Your task to perform on an android device: What's the weather going to be this weekend? Image 0: 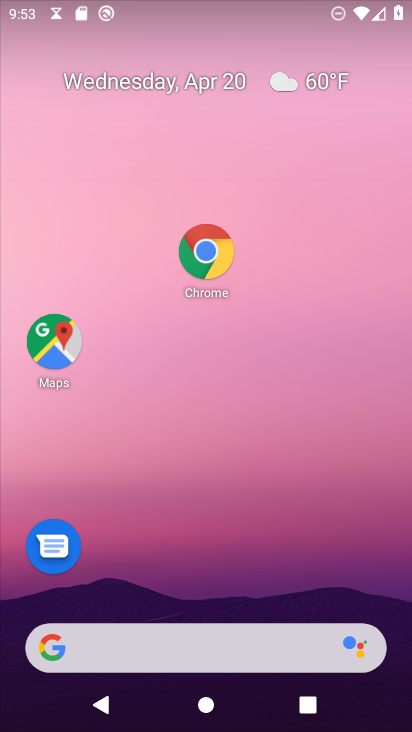
Step 0: drag from (150, 626) to (115, 229)
Your task to perform on an android device: What's the weather going to be this weekend? Image 1: 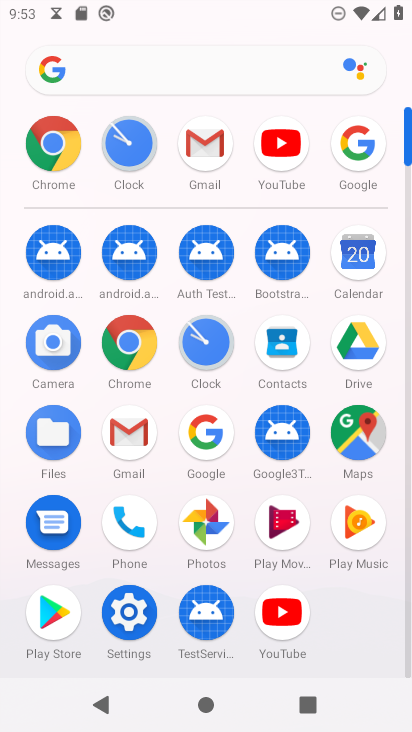
Step 1: click (199, 436)
Your task to perform on an android device: What's the weather going to be this weekend? Image 2: 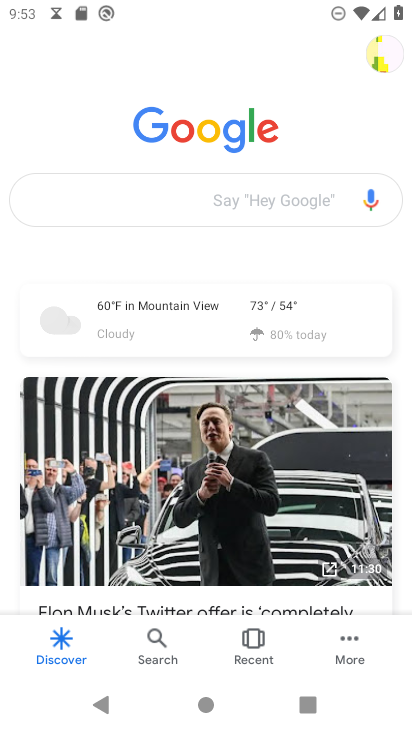
Step 2: click (120, 202)
Your task to perform on an android device: What's the weather going to be this weekend? Image 3: 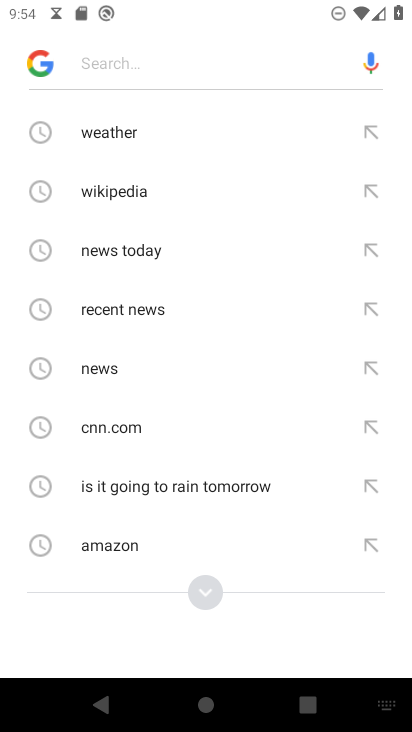
Step 3: type "whats the weather going to be this weekend?"
Your task to perform on an android device: What's the weather going to be this weekend? Image 4: 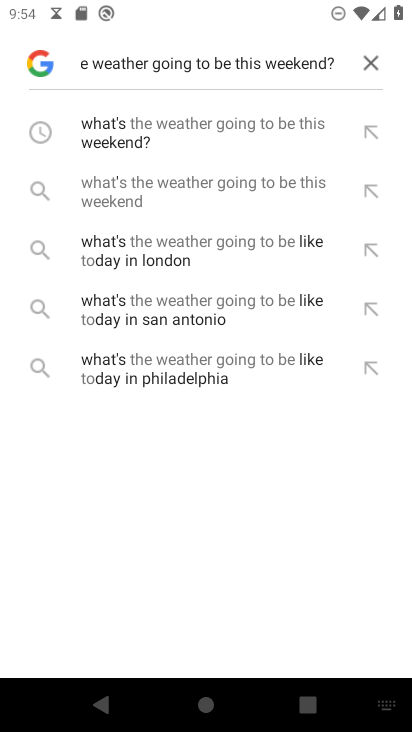
Step 4: click (188, 127)
Your task to perform on an android device: What's the weather going to be this weekend? Image 5: 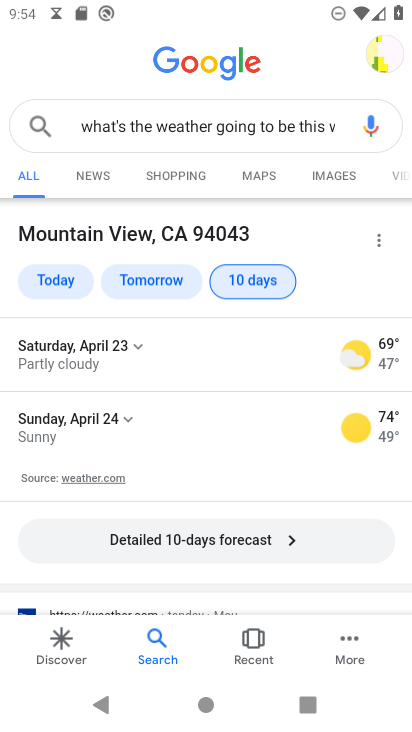
Step 5: click (185, 546)
Your task to perform on an android device: What's the weather going to be this weekend? Image 6: 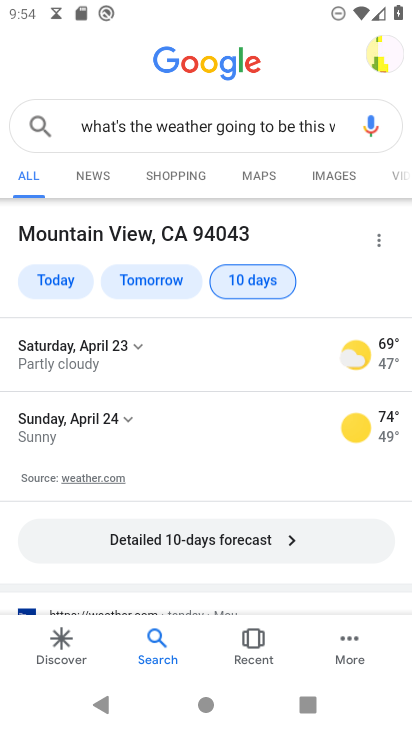
Step 6: click (238, 540)
Your task to perform on an android device: What's the weather going to be this weekend? Image 7: 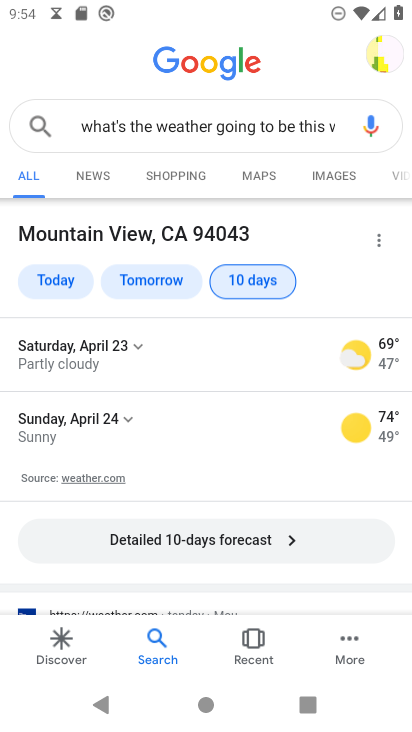
Step 7: task complete